Your task to perform on an android device: find snoozed emails in the gmail app Image 0: 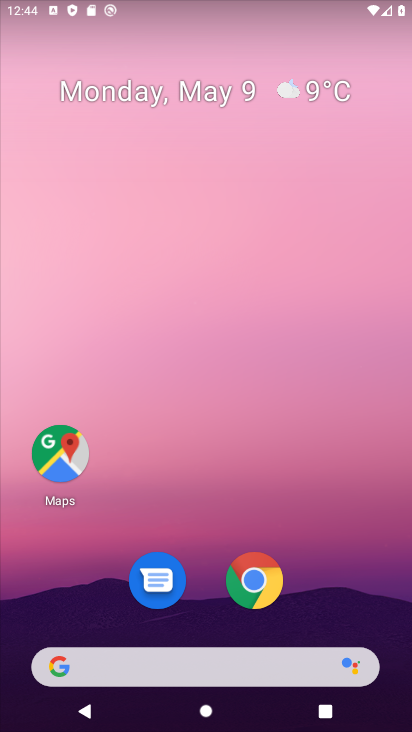
Step 0: drag from (311, 560) to (295, 31)
Your task to perform on an android device: find snoozed emails in the gmail app Image 1: 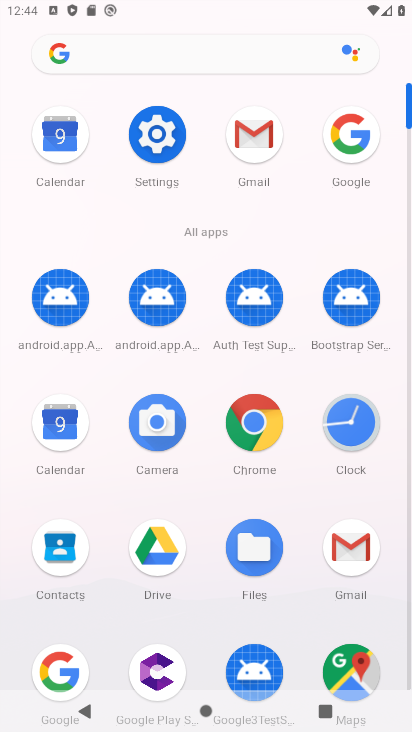
Step 1: click (358, 544)
Your task to perform on an android device: find snoozed emails in the gmail app Image 2: 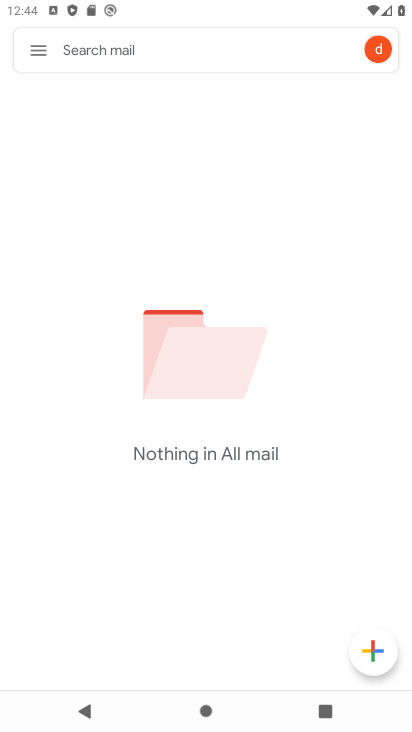
Step 2: click (32, 51)
Your task to perform on an android device: find snoozed emails in the gmail app Image 3: 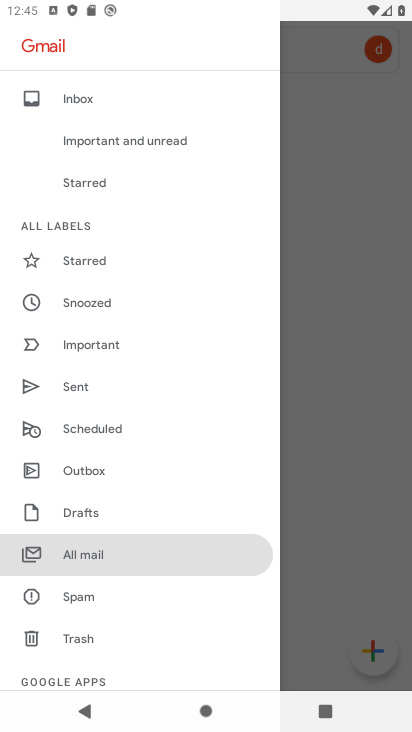
Step 3: click (92, 307)
Your task to perform on an android device: find snoozed emails in the gmail app Image 4: 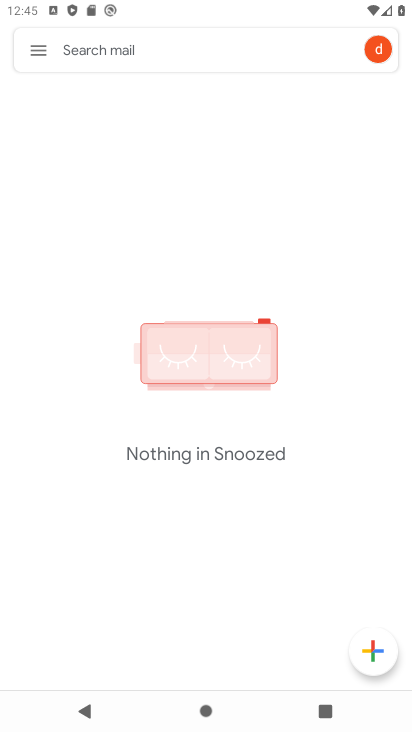
Step 4: task complete